Your task to perform on an android device: Go to ESPN.com Image 0: 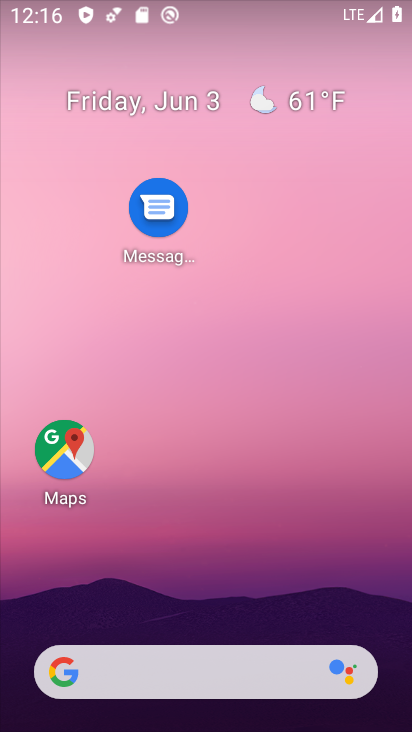
Step 0: drag from (201, 641) to (129, 2)
Your task to perform on an android device: Go to ESPN.com Image 1: 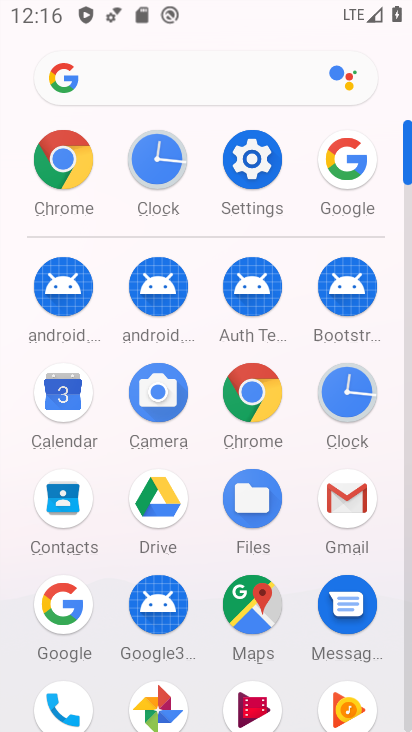
Step 1: click (253, 395)
Your task to perform on an android device: Go to ESPN.com Image 2: 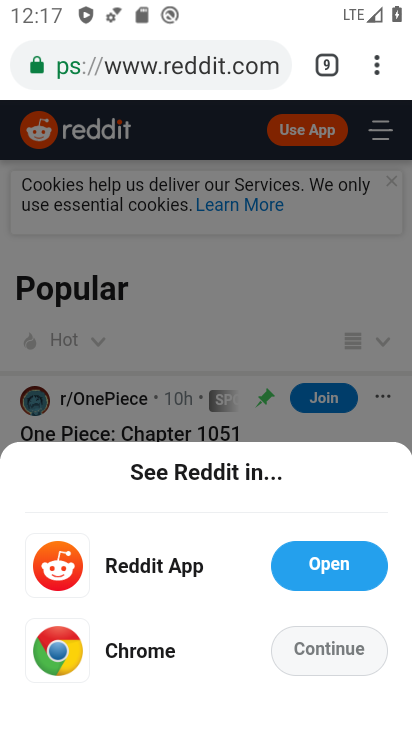
Step 2: click (334, 39)
Your task to perform on an android device: Go to ESPN.com Image 3: 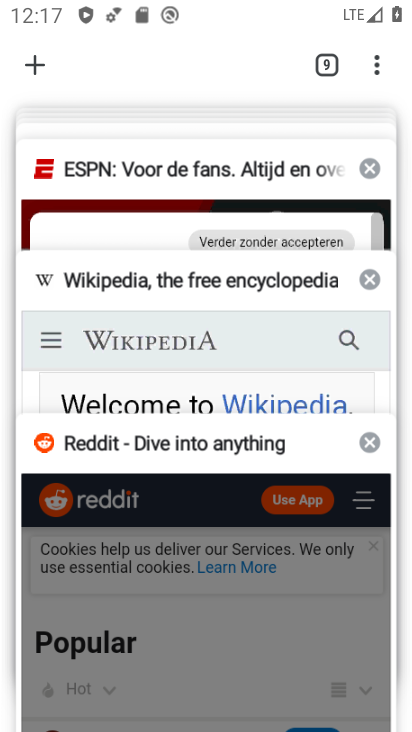
Step 3: click (54, 172)
Your task to perform on an android device: Go to ESPN.com Image 4: 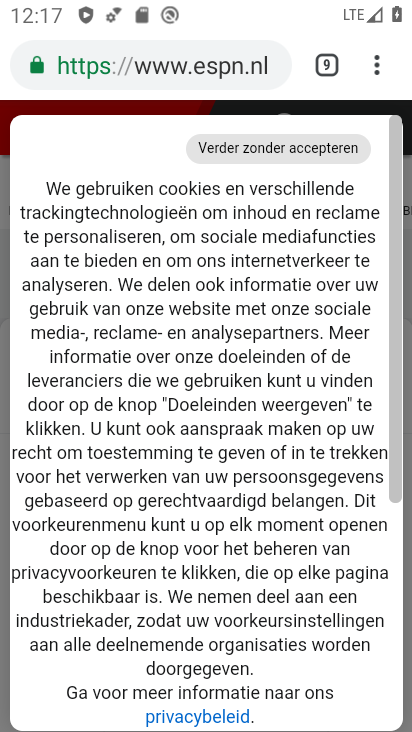
Step 4: drag from (298, 613) to (280, 113)
Your task to perform on an android device: Go to ESPN.com Image 5: 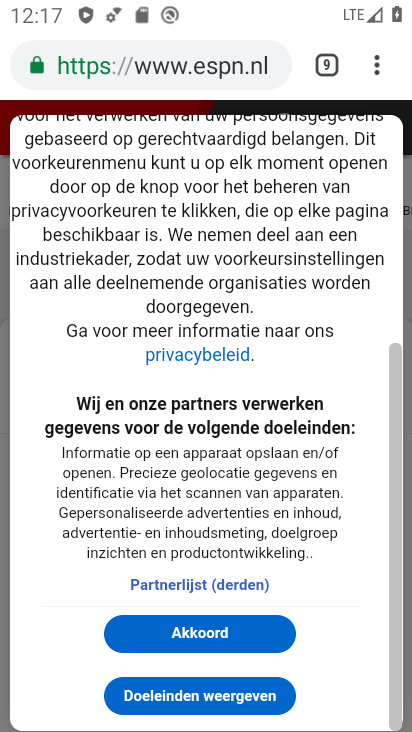
Step 5: click (218, 635)
Your task to perform on an android device: Go to ESPN.com Image 6: 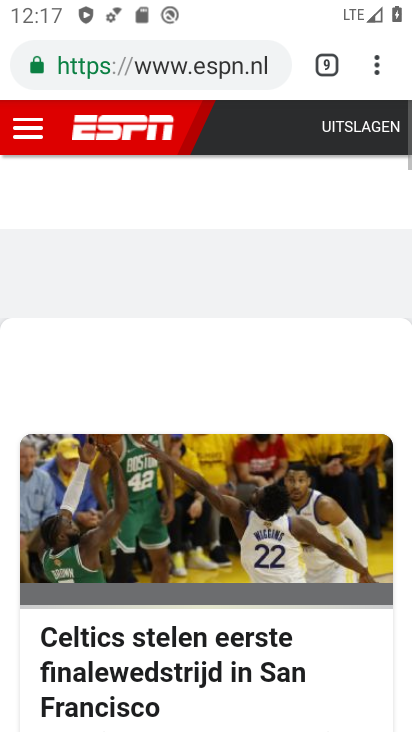
Step 6: task complete